Your task to perform on an android device: What is the recent news? Image 0: 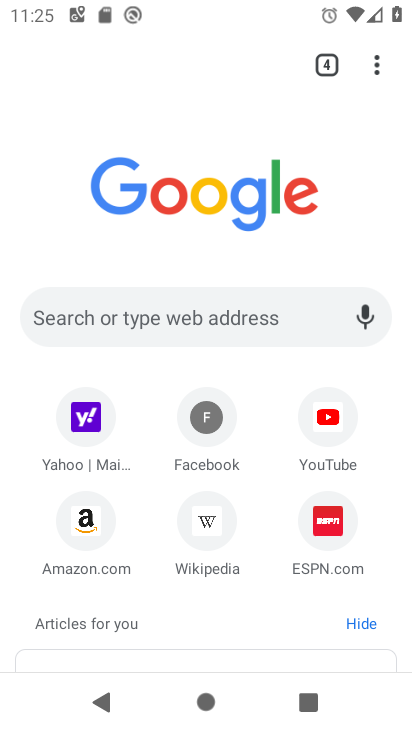
Step 0: press home button
Your task to perform on an android device: What is the recent news? Image 1: 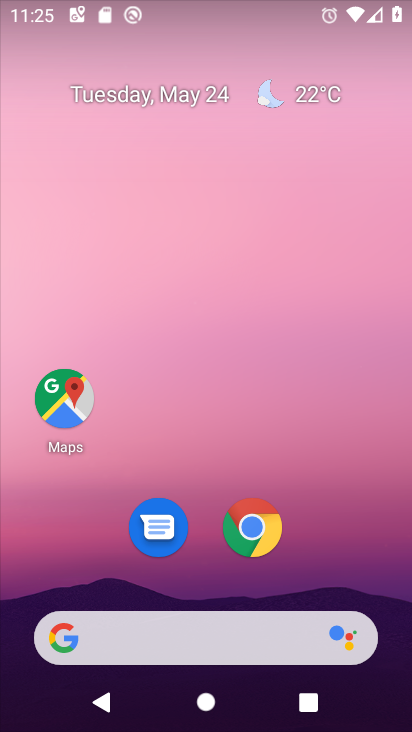
Step 1: click (77, 638)
Your task to perform on an android device: What is the recent news? Image 2: 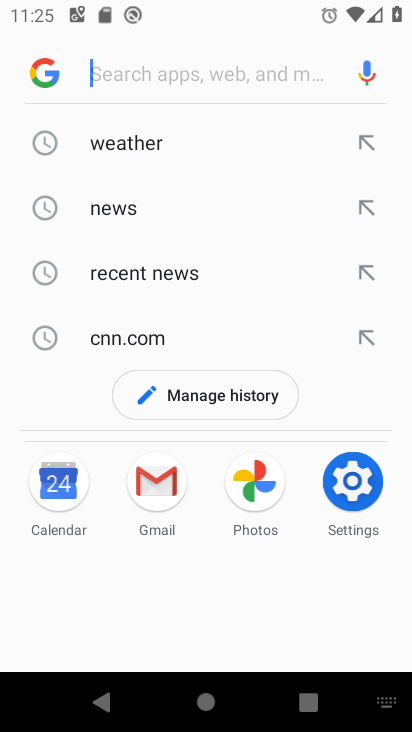
Step 2: click (124, 211)
Your task to perform on an android device: What is the recent news? Image 3: 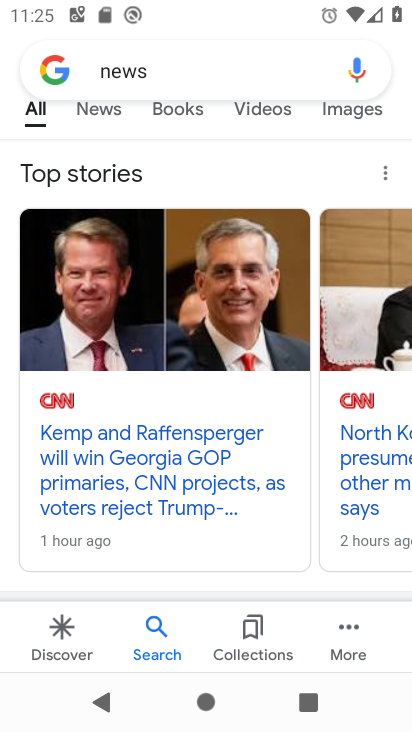
Step 3: click (93, 105)
Your task to perform on an android device: What is the recent news? Image 4: 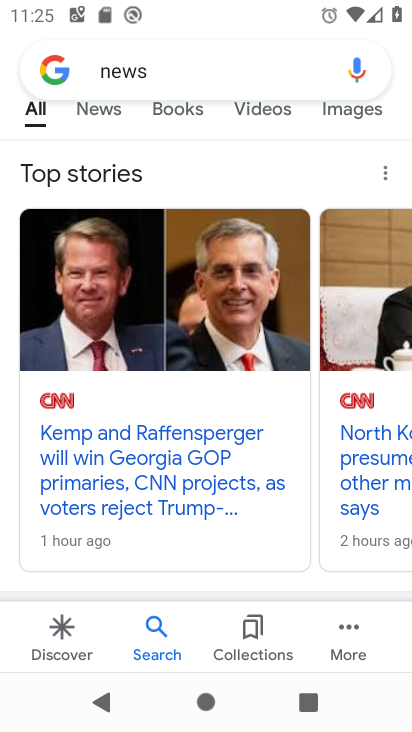
Step 4: click (99, 111)
Your task to perform on an android device: What is the recent news? Image 5: 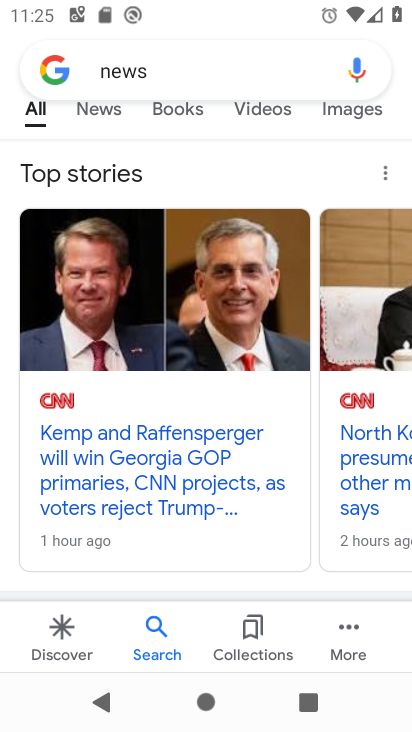
Step 5: click (103, 103)
Your task to perform on an android device: What is the recent news? Image 6: 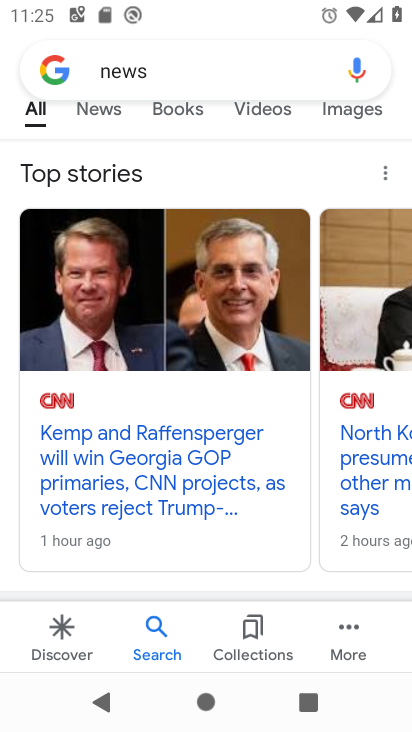
Step 6: click (94, 113)
Your task to perform on an android device: What is the recent news? Image 7: 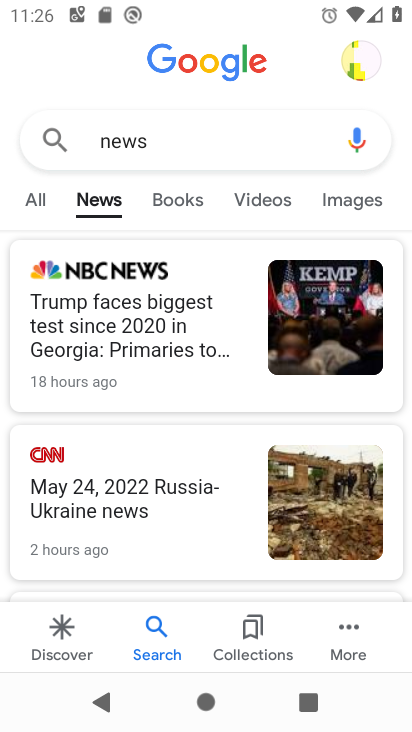
Step 7: task complete